Your task to perform on an android device: turn off translation in the chrome app Image 0: 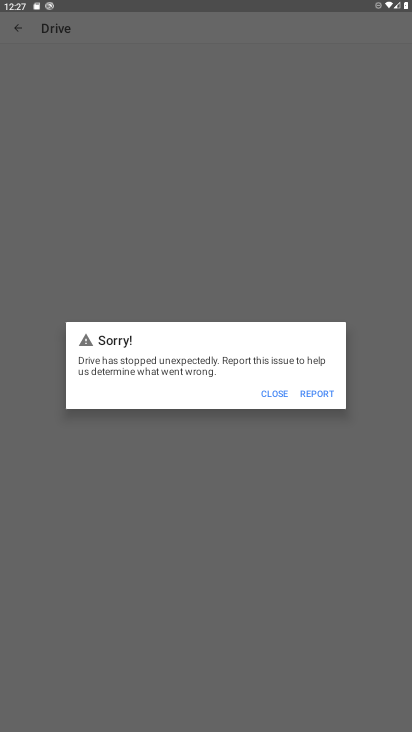
Step 0: press back button
Your task to perform on an android device: turn off translation in the chrome app Image 1: 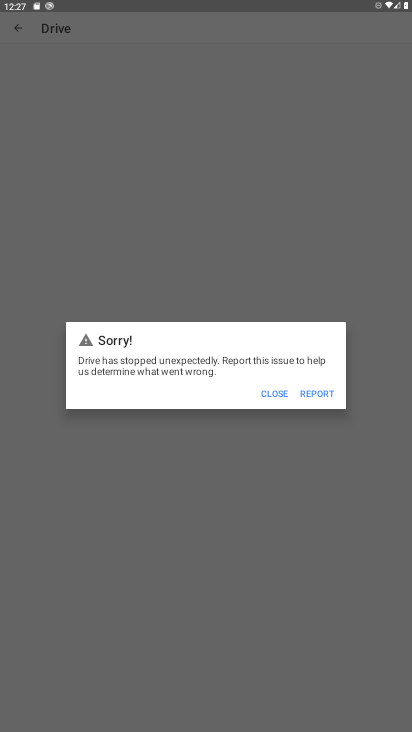
Step 1: press back button
Your task to perform on an android device: turn off translation in the chrome app Image 2: 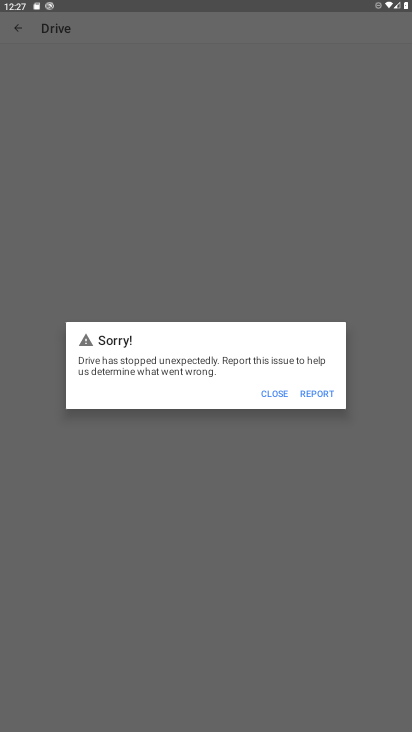
Step 2: press home button
Your task to perform on an android device: turn off translation in the chrome app Image 3: 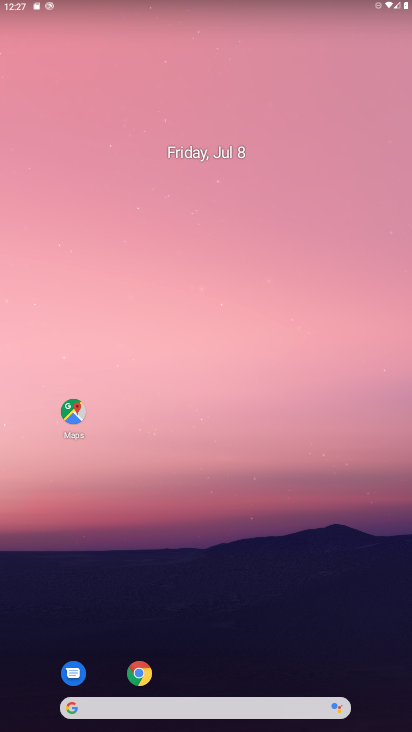
Step 3: click (137, 669)
Your task to perform on an android device: turn off translation in the chrome app Image 4: 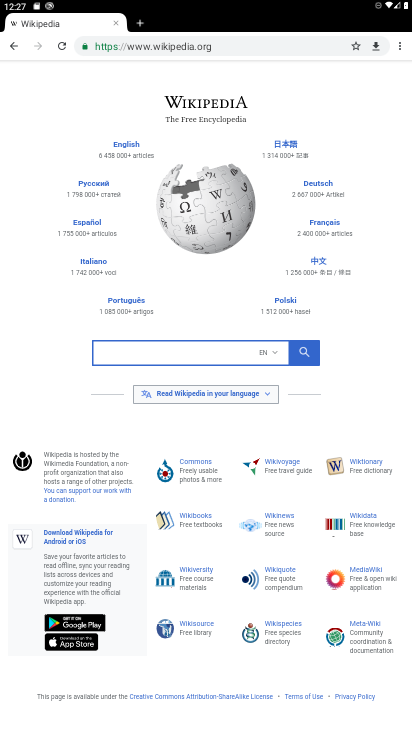
Step 4: task complete